Your task to perform on an android device: change the upload size in google photos Image 0: 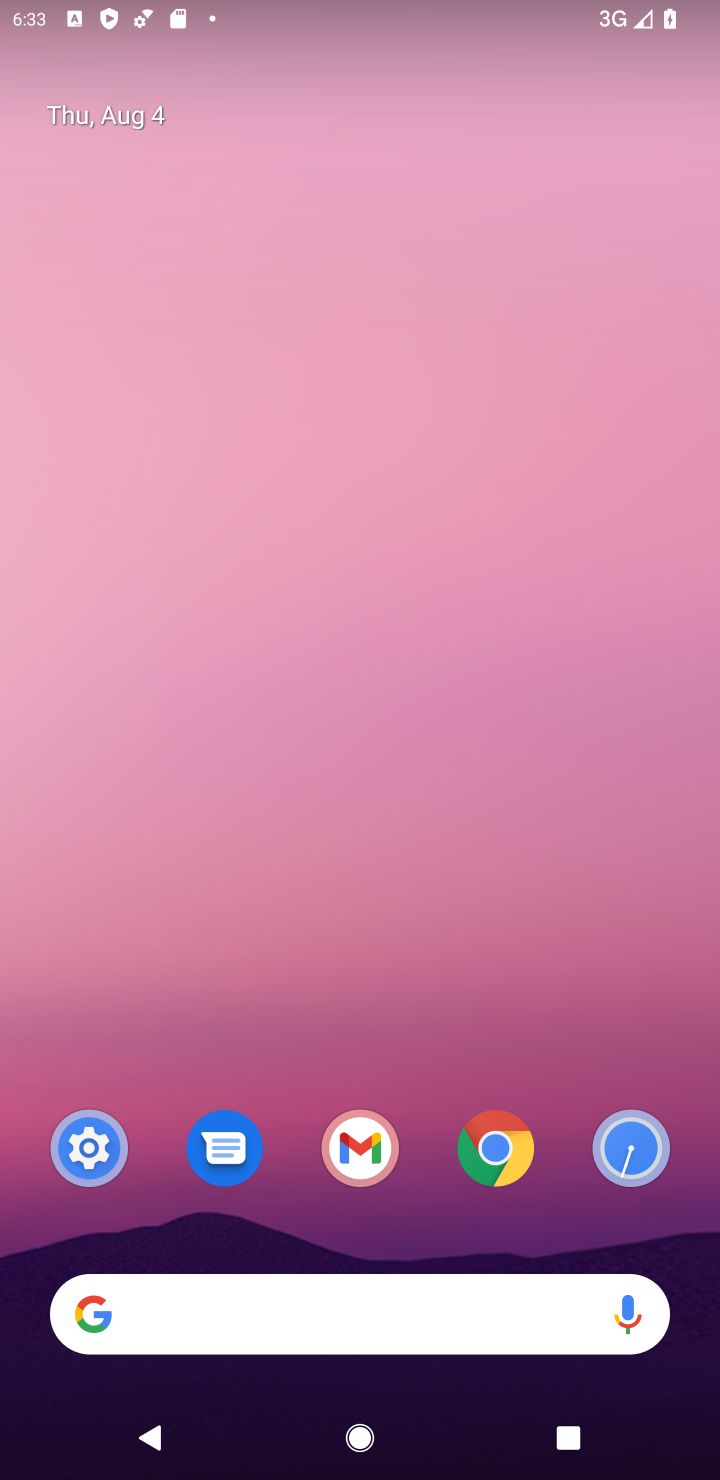
Step 0: drag from (565, 1225) to (474, 41)
Your task to perform on an android device: change the upload size in google photos Image 1: 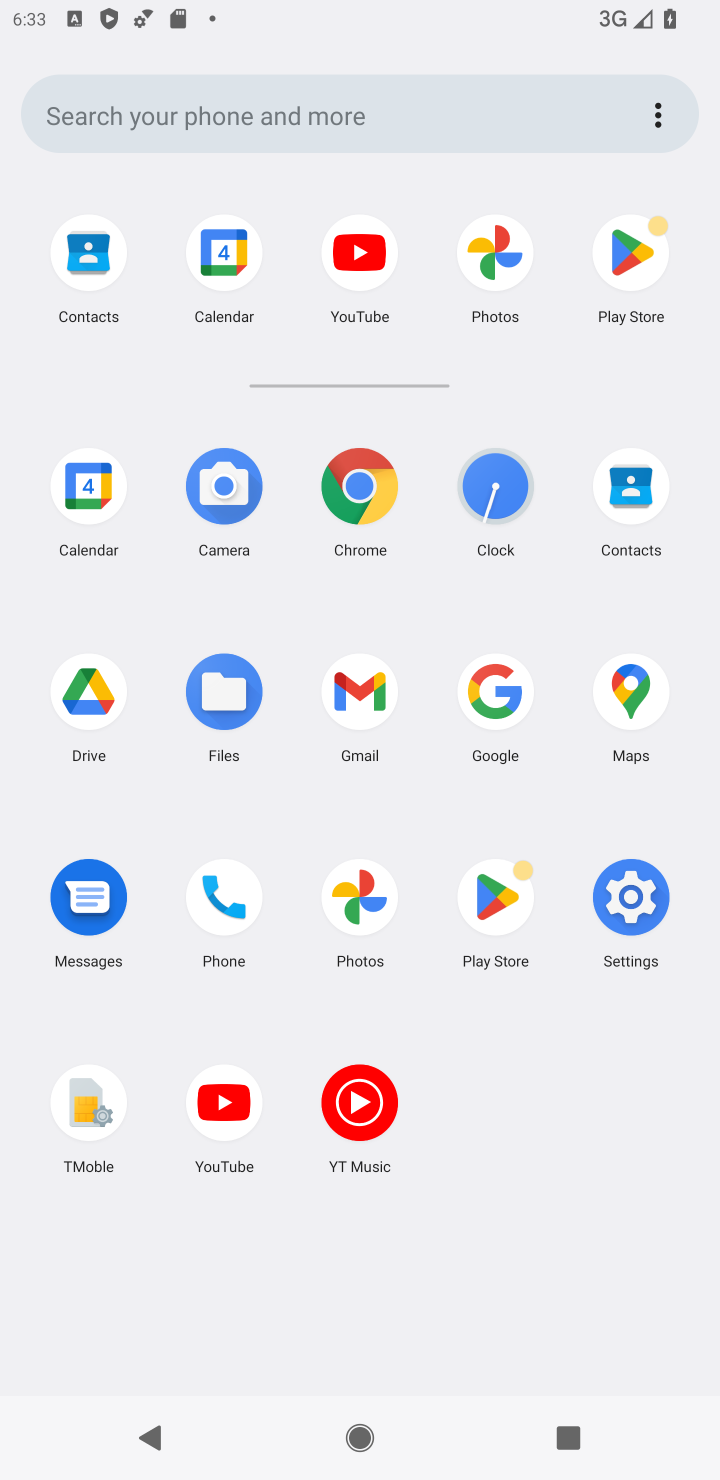
Step 1: click (360, 894)
Your task to perform on an android device: change the upload size in google photos Image 2: 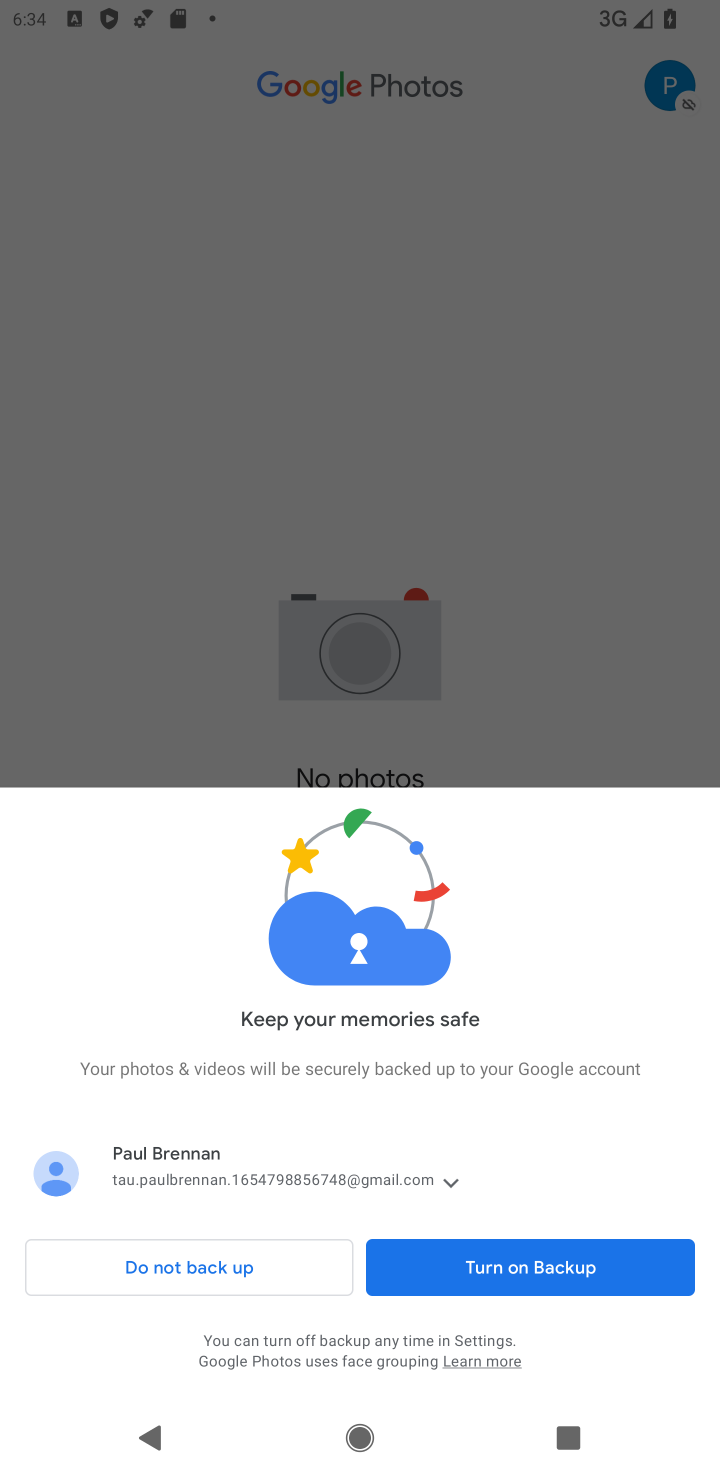
Step 2: click (525, 1269)
Your task to perform on an android device: change the upload size in google photos Image 3: 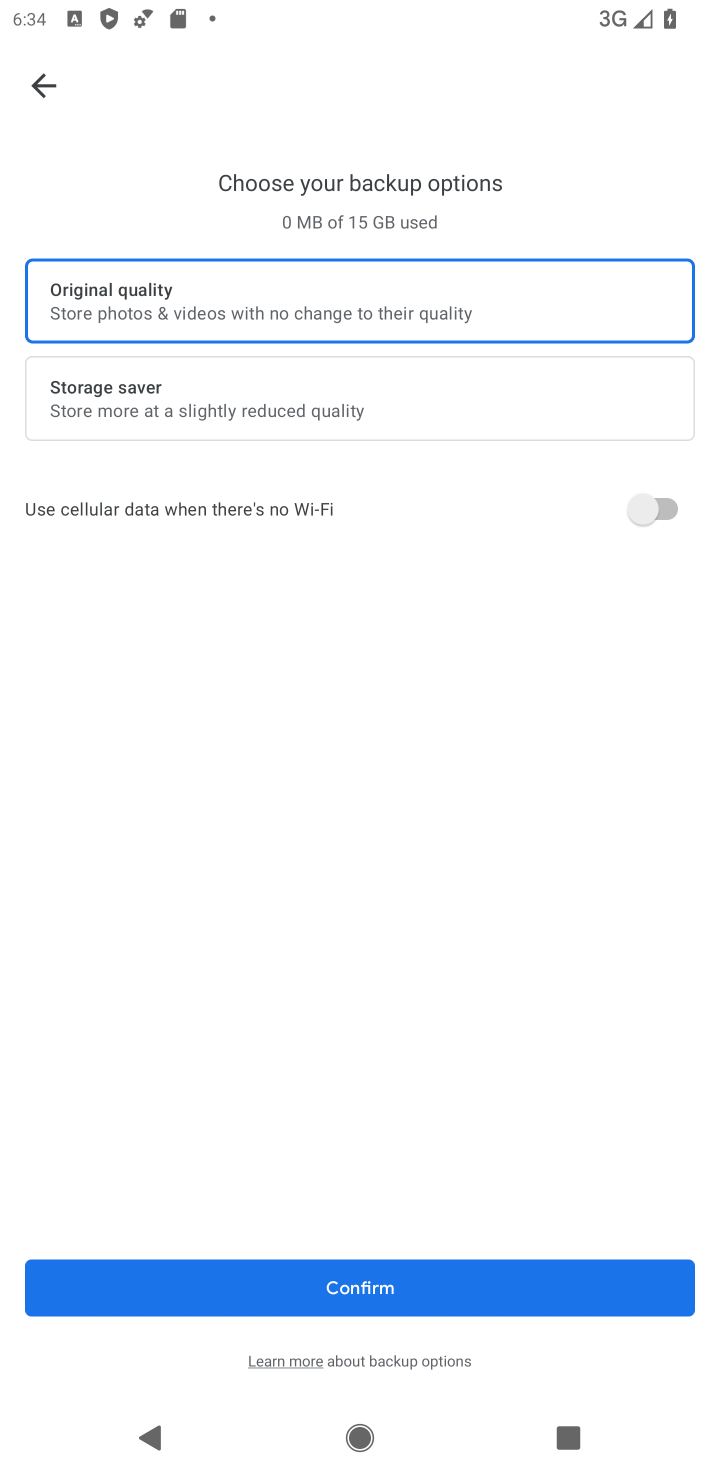
Step 3: click (336, 1283)
Your task to perform on an android device: change the upload size in google photos Image 4: 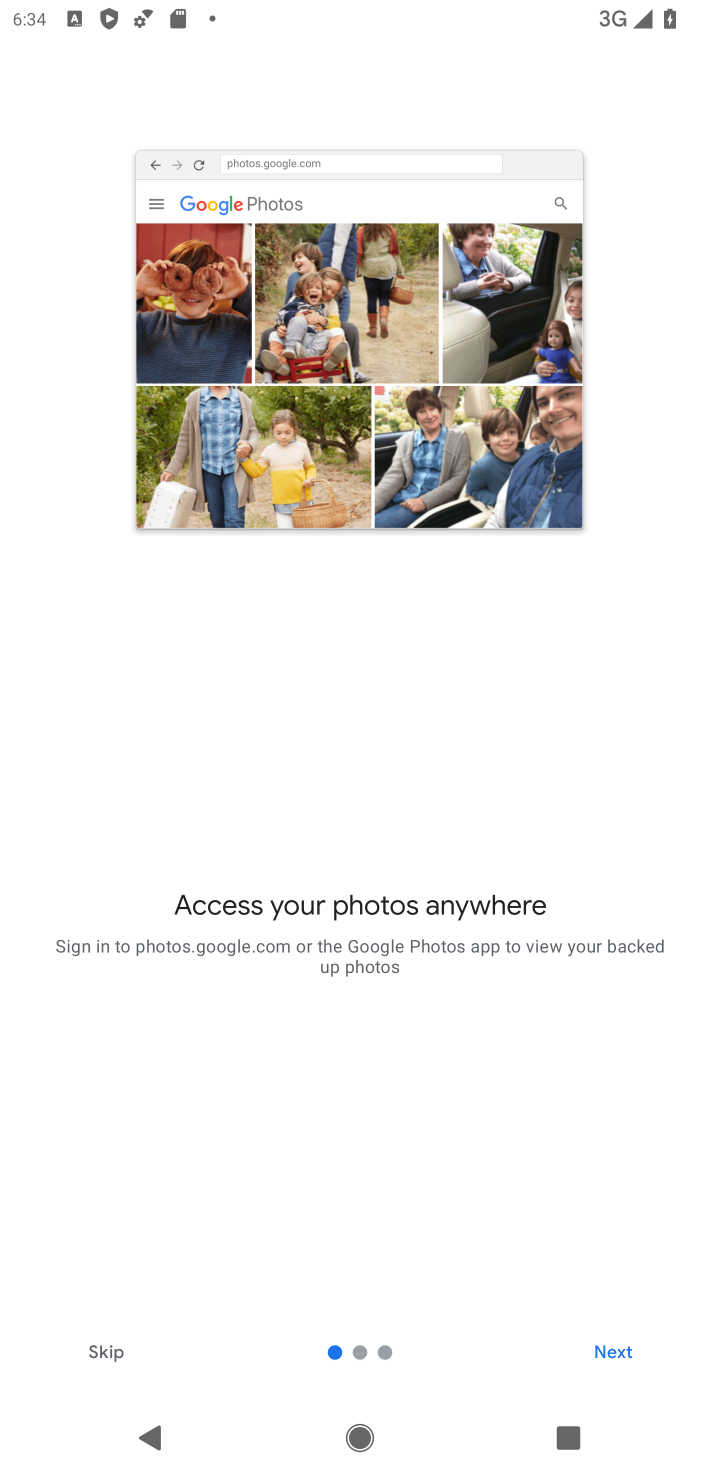
Step 4: click (97, 1344)
Your task to perform on an android device: change the upload size in google photos Image 5: 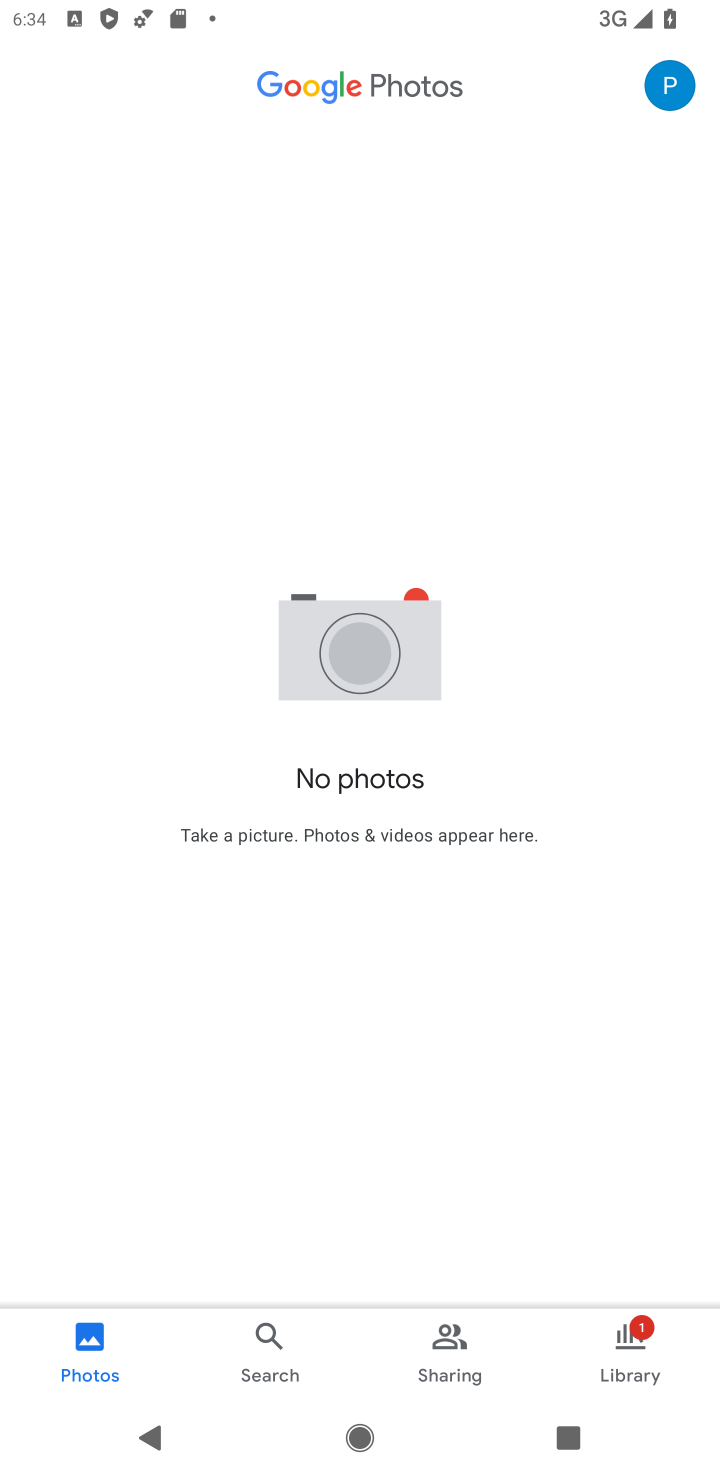
Step 5: click (666, 91)
Your task to perform on an android device: change the upload size in google photos Image 6: 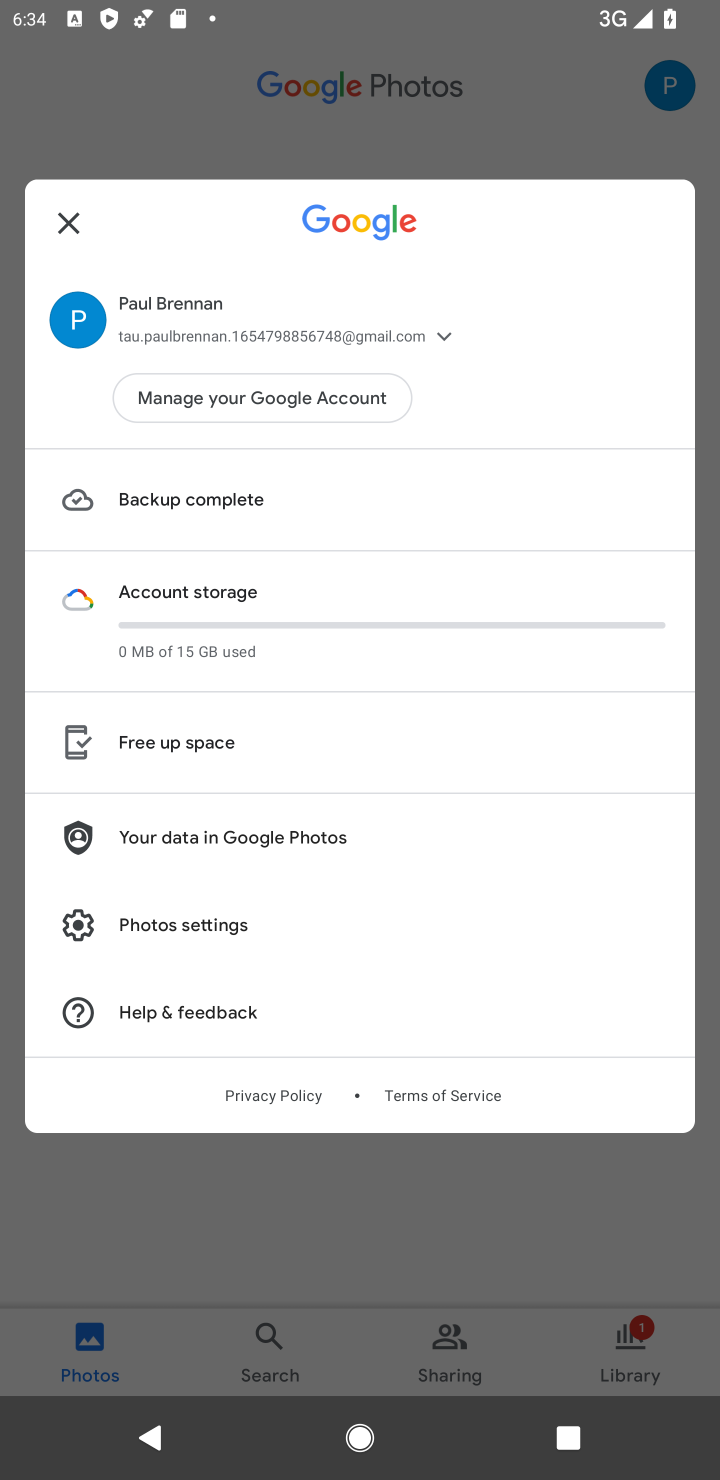
Step 6: click (140, 917)
Your task to perform on an android device: change the upload size in google photos Image 7: 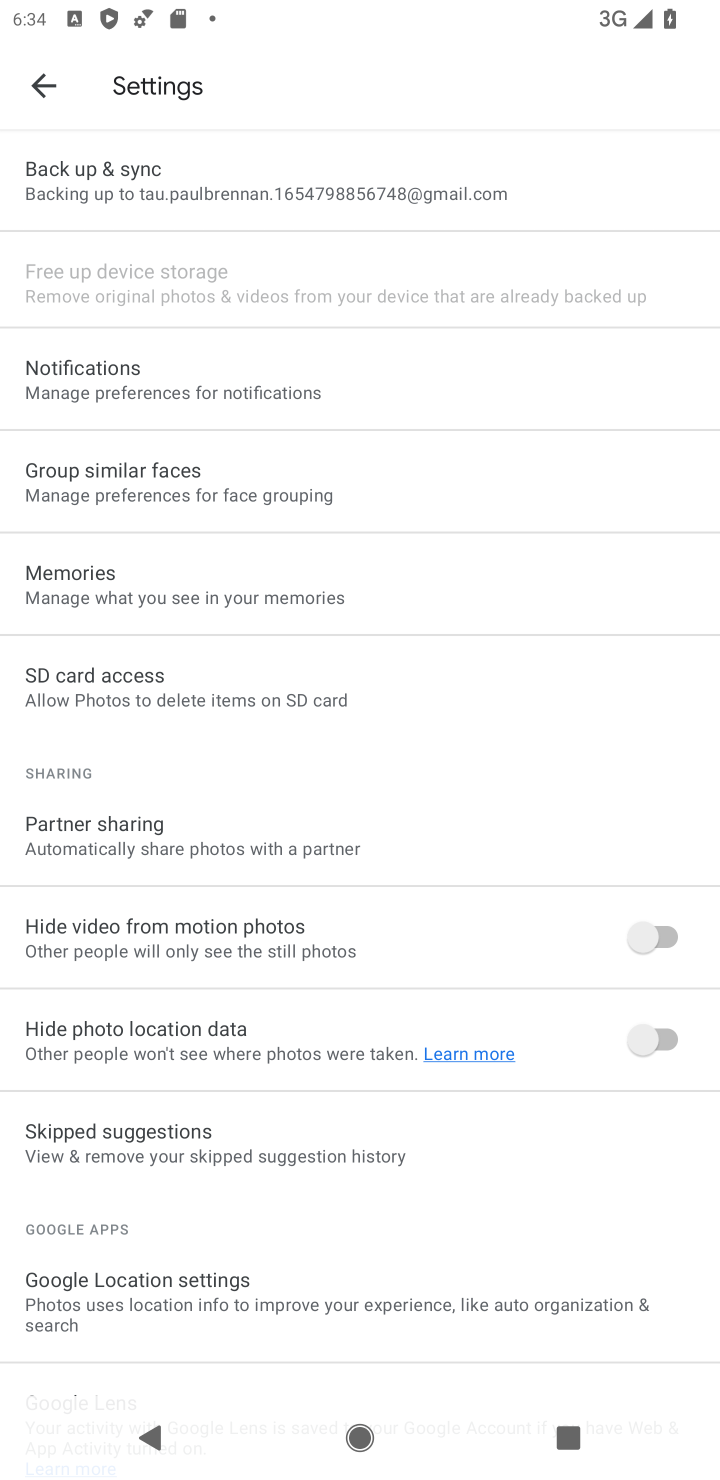
Step 7: click (146, 168)
Your task to perform on an android device: change the upload size in google photos Image 8: 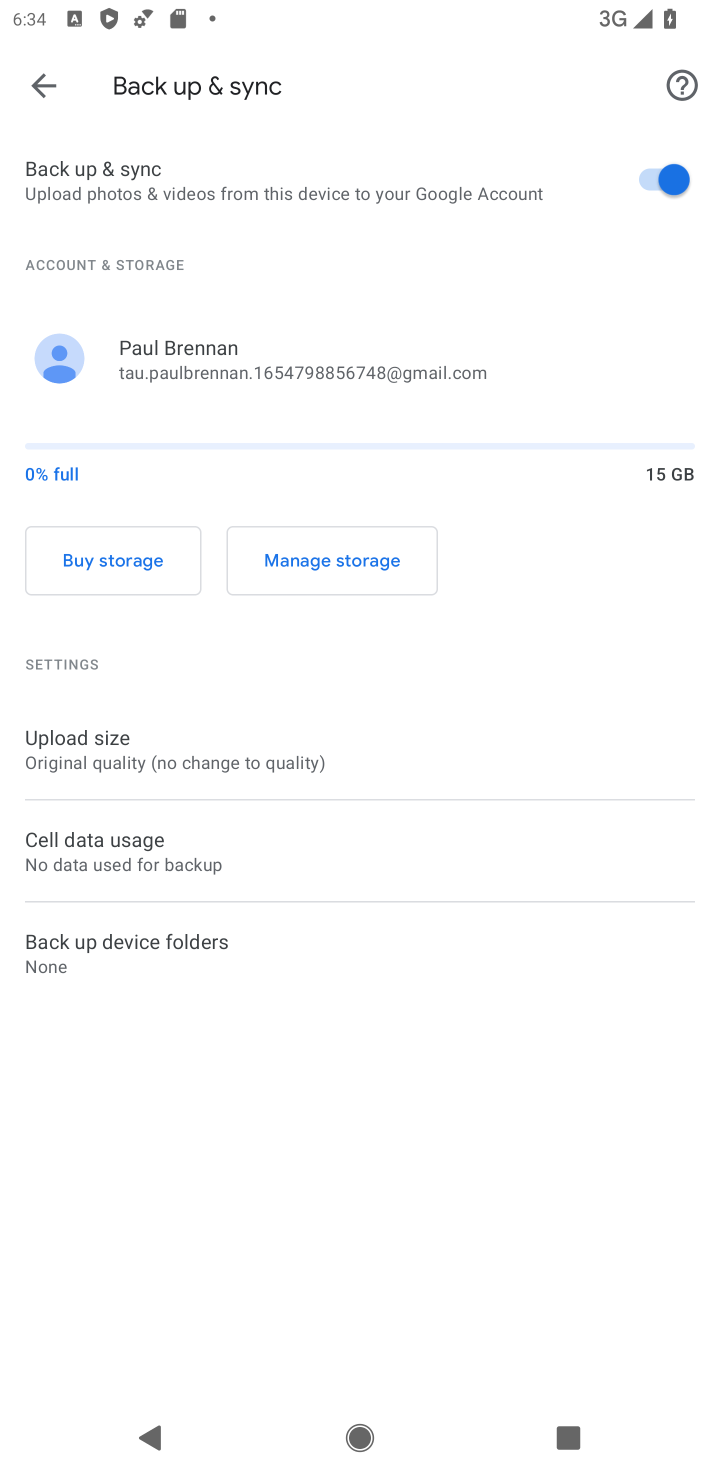
Step 8: click (110, 753)
Your task to perform on an android device: change the upload size in google photos Image 9: 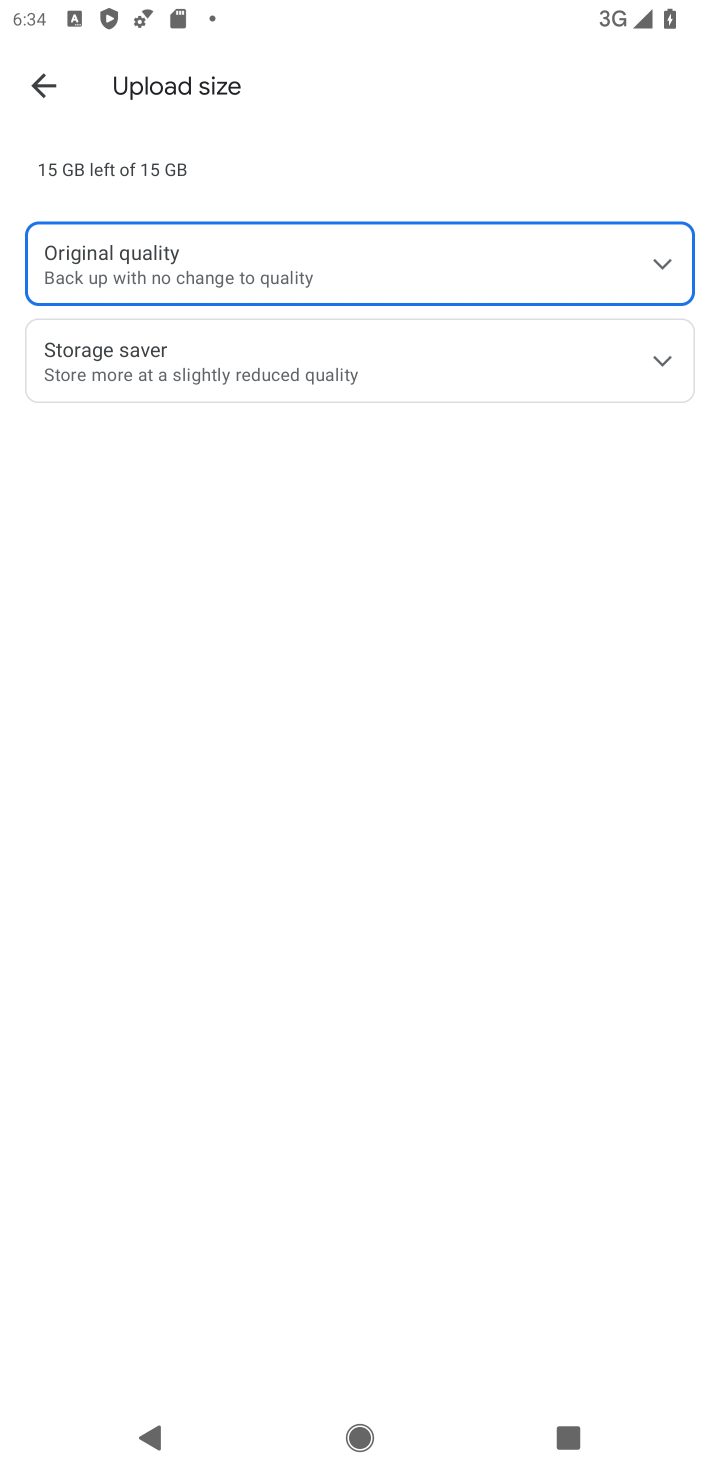
Step 9: click (657, 369)
Your task to perform on an android device: change the upload size in google photos Image 10: 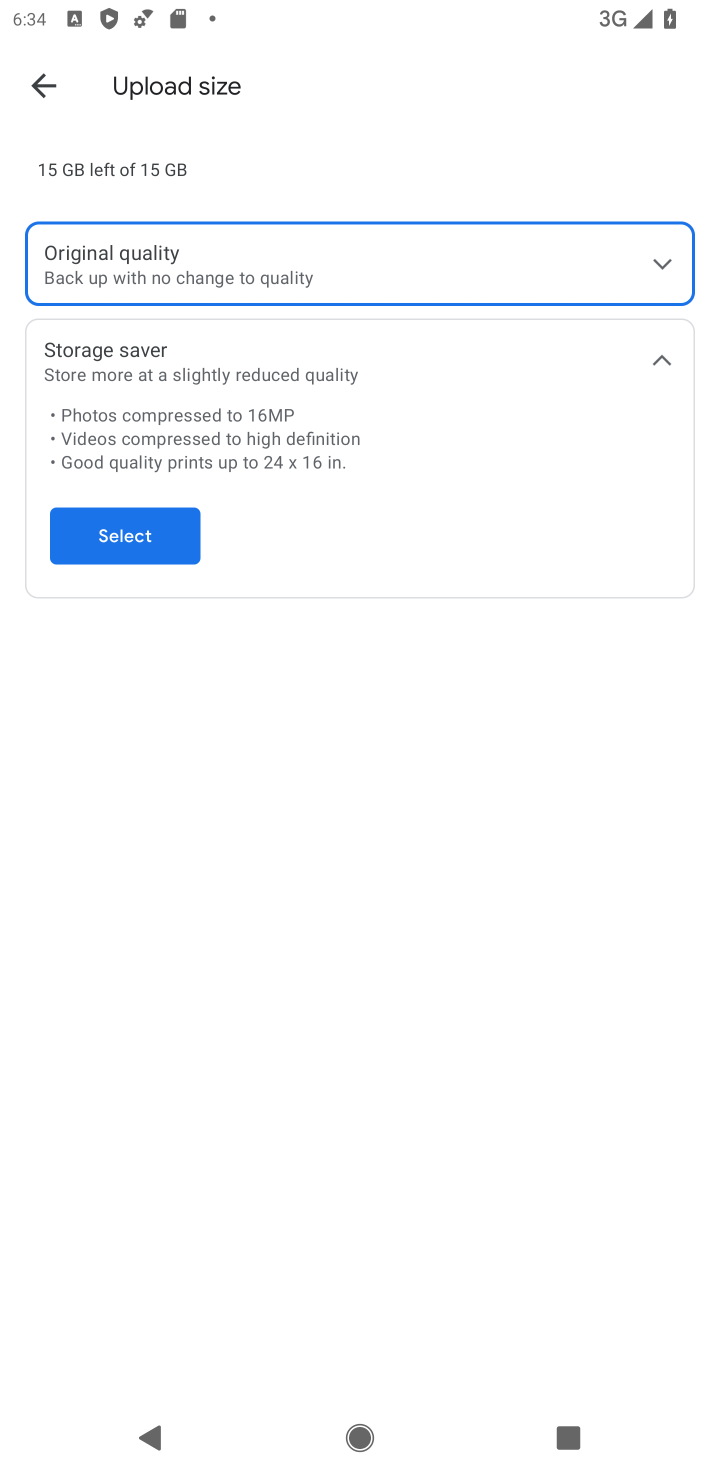
Step 10: click (115, 539)
Your task to perform on an android device: change the upload size in google photos Image 11: 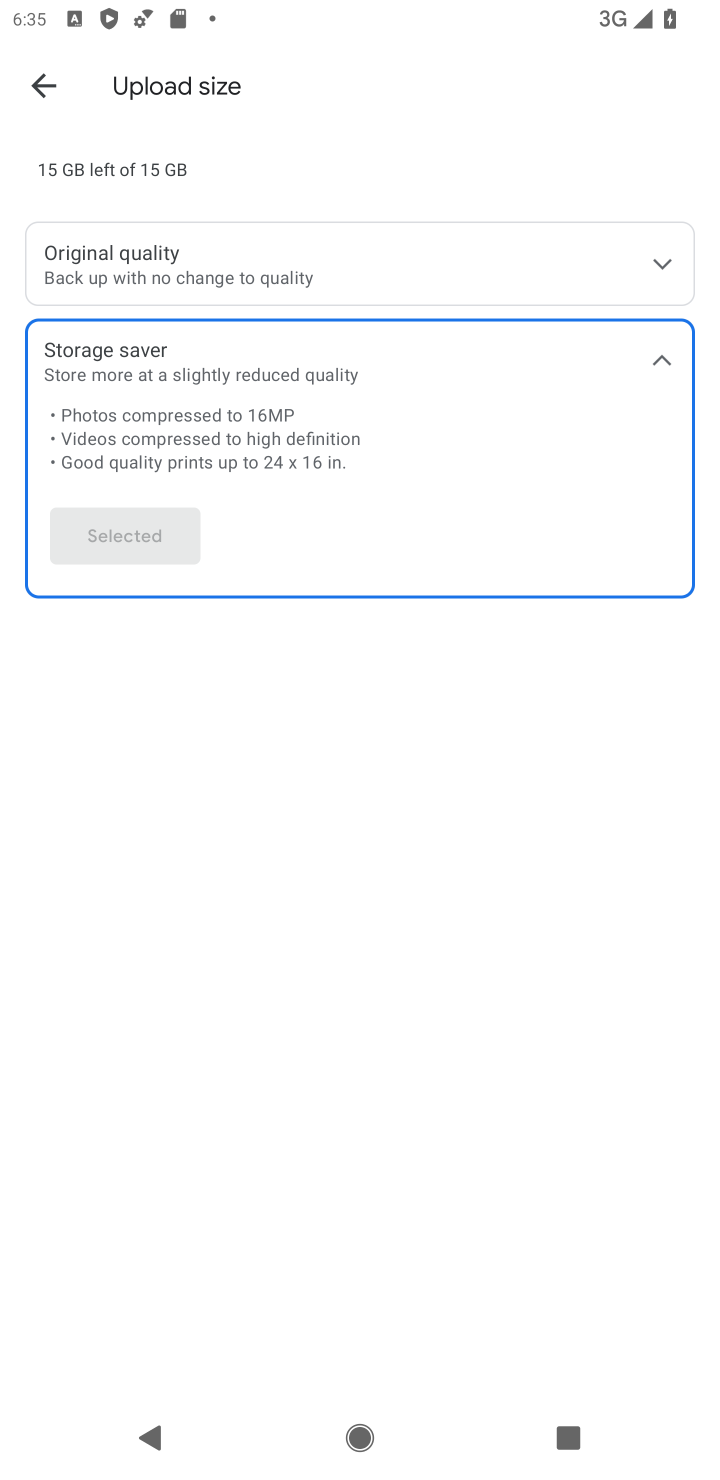
Step 11: task complete